Your task to perform on an android device: Open notification settings Image 0: 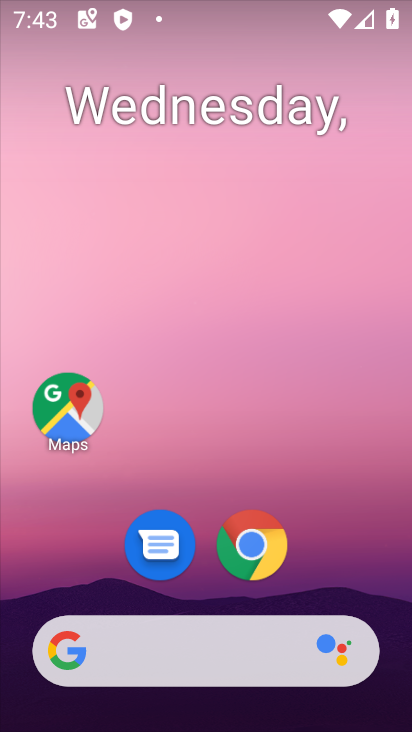
Step 0: drag from (15, 604) to (74, 484)
Your task to perform on an android device: Open notification settings Image 1: 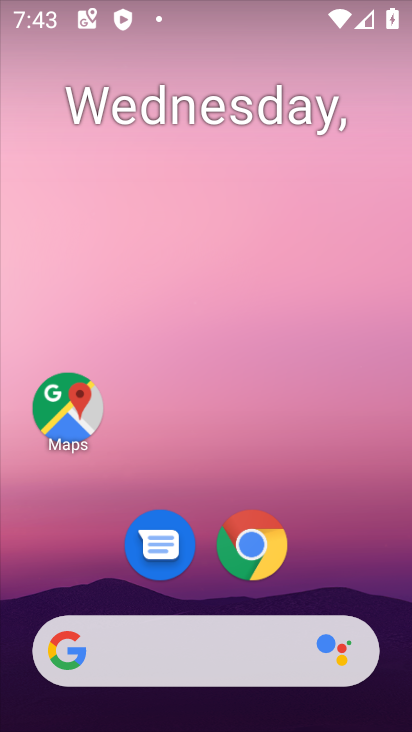
Step 1: drag from (11, 608) to (274, 191)
Your task to perform on an android device: Open notification settings Image 2: 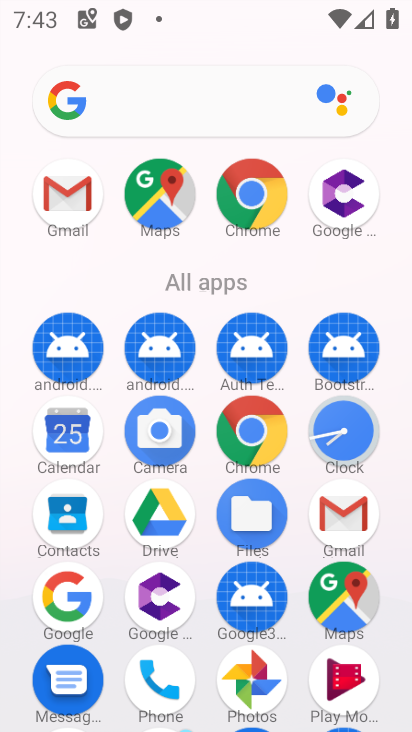
Step 2: drag from (37, 579) to (307, 165)
Your task to perform on an android device: Open notification settings Image 3: 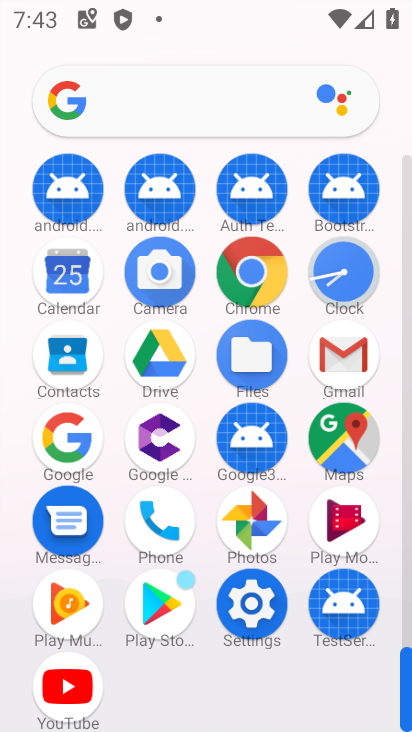
Step 3: click (263, 618)
Your task to perform on an android device: Open notification settings Image 4: 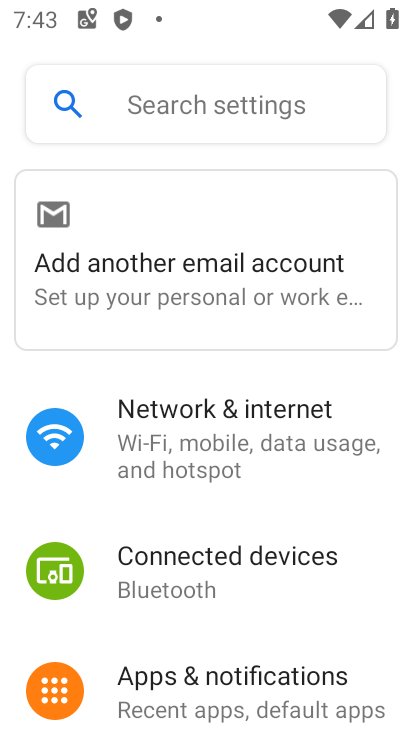
Step 4: click (247, 486)
Your task to perform on an android device: Open notification settings Image 5: 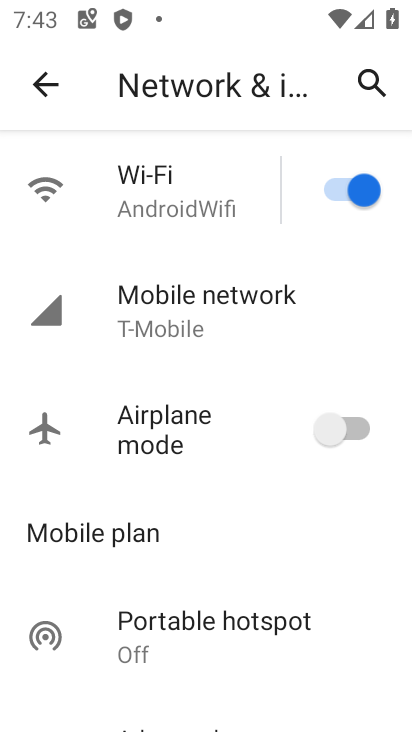
Step 5: press back button
Your task to perform on an android device: Open notification settings Image 6: 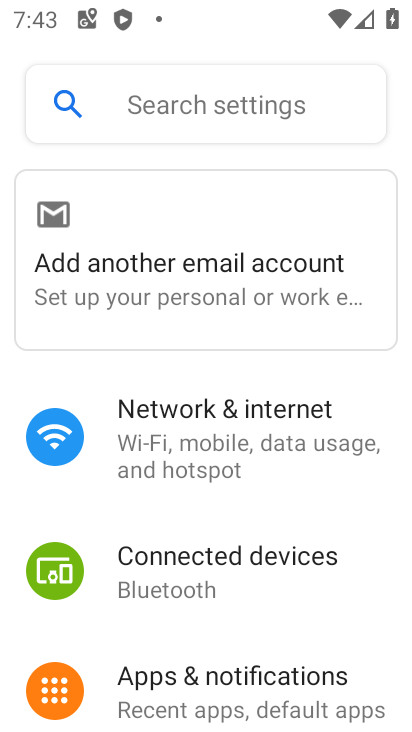
Step 6: click (134, 682)
Your task to perform on an android device: Open notification settings Image 7: 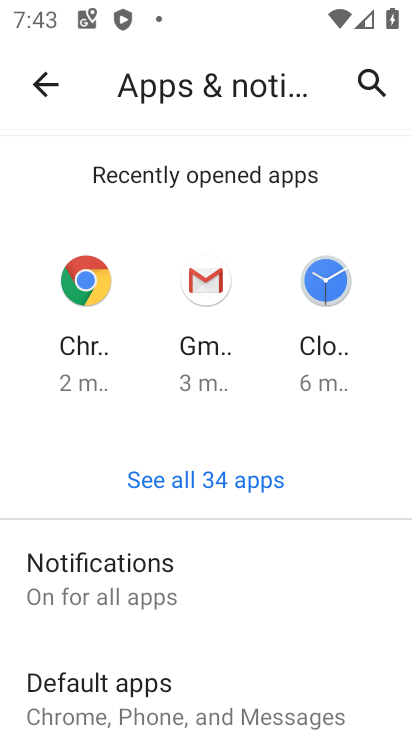
Step 7: task complete